Your task to perform on an android device: Play the last video I watched on Youtube Image 0: 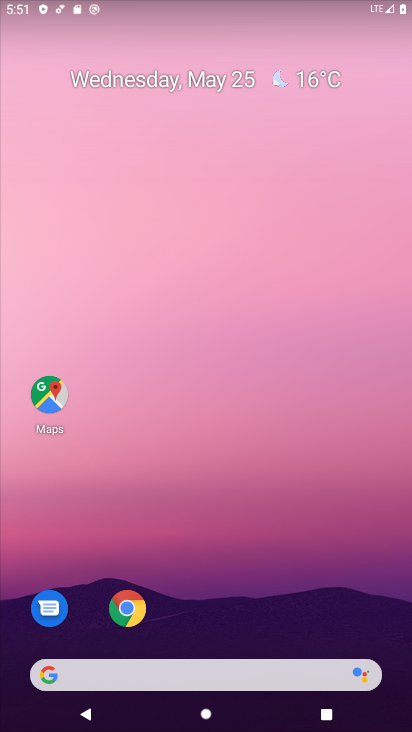
Step 0: drag from (173, 632) to (148, 0)
Your task to perform on an android device: Play the last video I watched on Youtube Image 1: 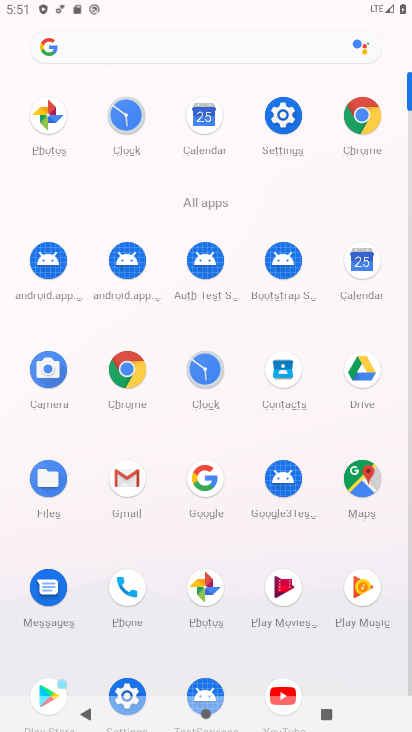
Step 1: click (296, 690)
Your task to perform on an android device: Play the last video I watched on Youtube Image 2: 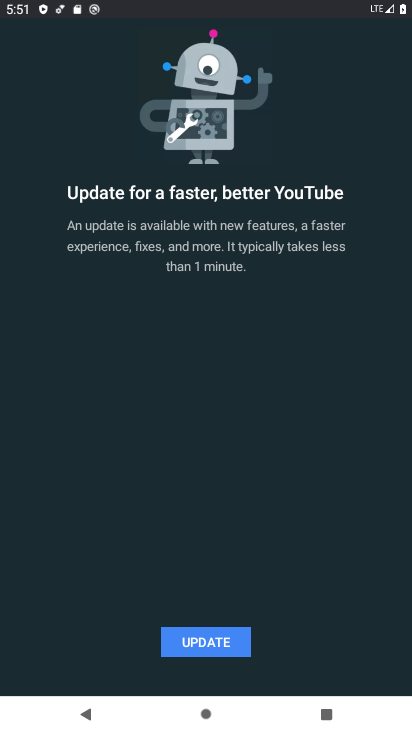
Step 2: click (220, 645)
Your task to perform on an android device: Play the last video I watched on Youtube Image 3: 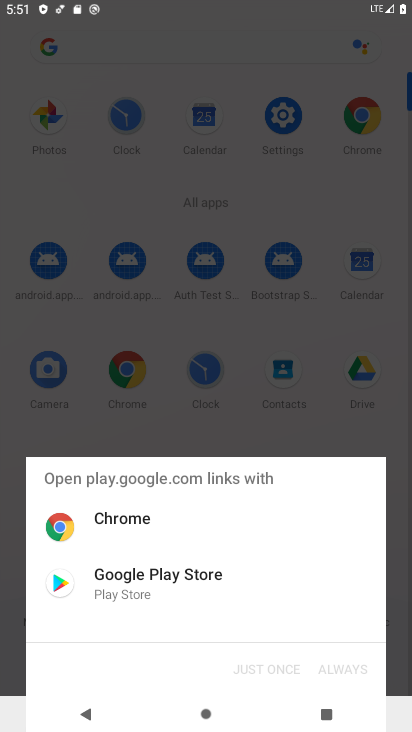
Step 3: click (168, 572)
Your task to perform on an android device: Play the last video I watched on Youtube Image 4: 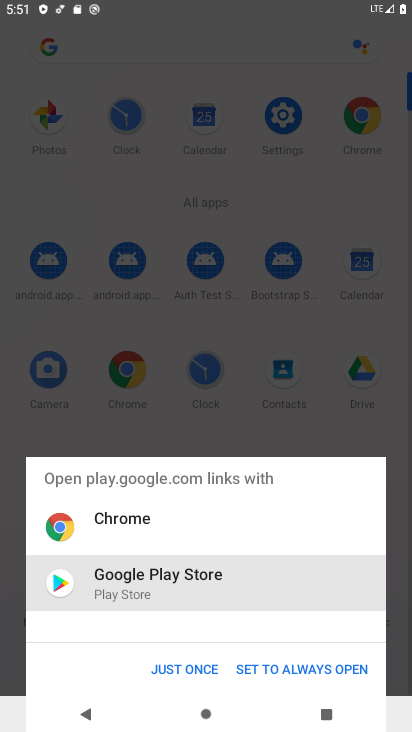
Step 4: click (205, 666)
Your task to perform on an android device: Play the last video I watched on Youtube Image 5: 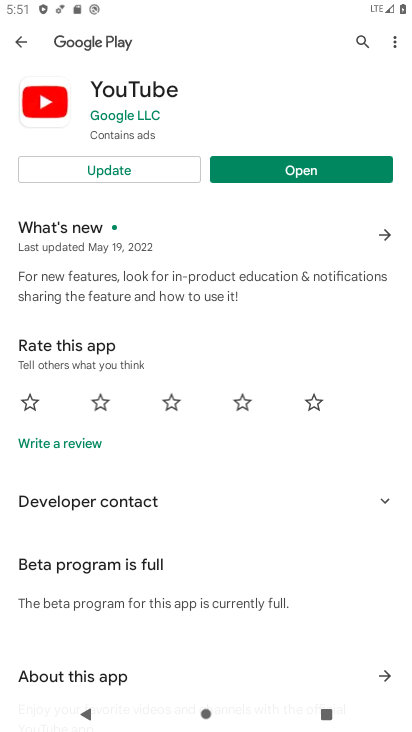
Step 5: click (150, 166)
Your task to perform on an android device: Play the last video I watched on Youtube Image 6: 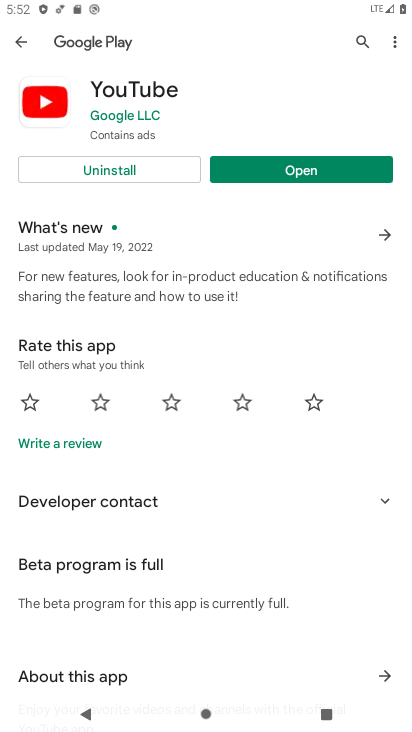
Step 6: click (315, 167)
Your task to perform on an android device: Play the last video I watched on Youtube Image 7: 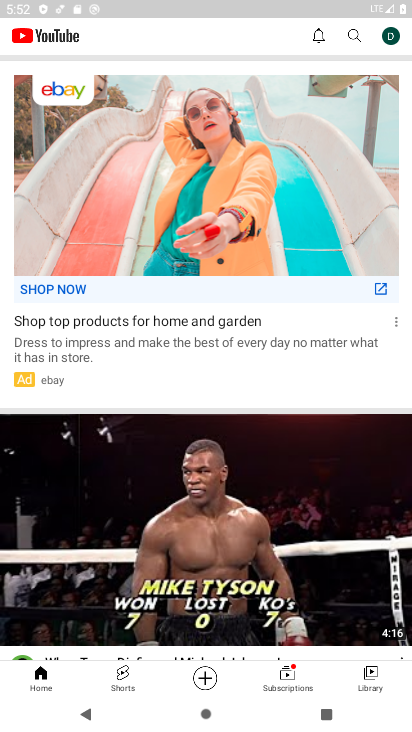
Step 7: click (376, 674)
Your task to perform on an android device: Play the last video I watched on Youtube Image 8: 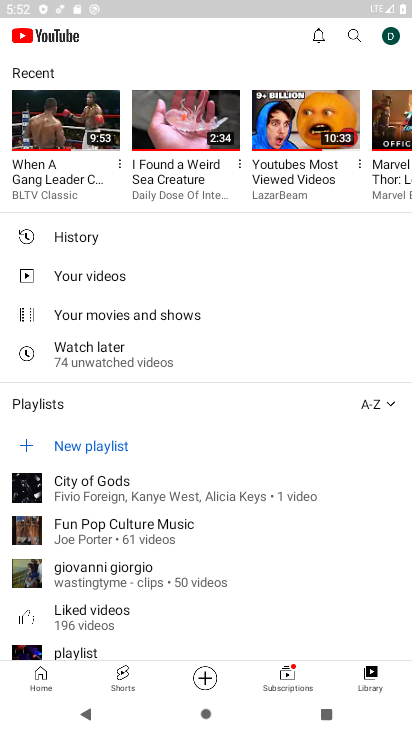
Step 8: click (83, 126)
Your task to perform on an android device: Play the last video I watched on Youtube Image 9: 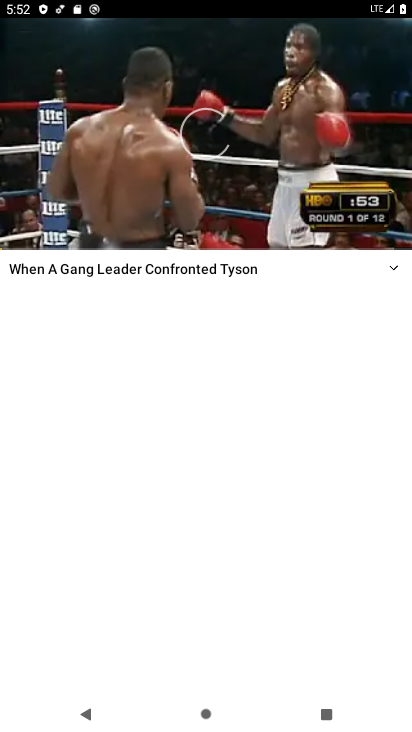
Step 9: task complete